Your task to perform on an android device: Do I have any events tomorrow? Image 0: 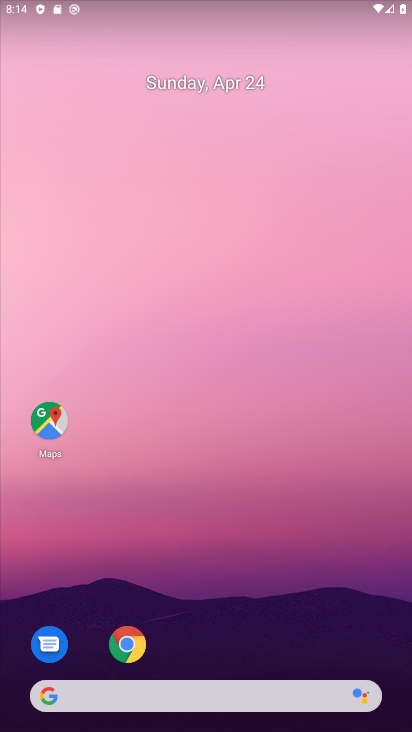
Step 0: drag from (189, 648) to (367, 70)
Your task to perform on an android device: Do I have any events tomorrow? Image 1: 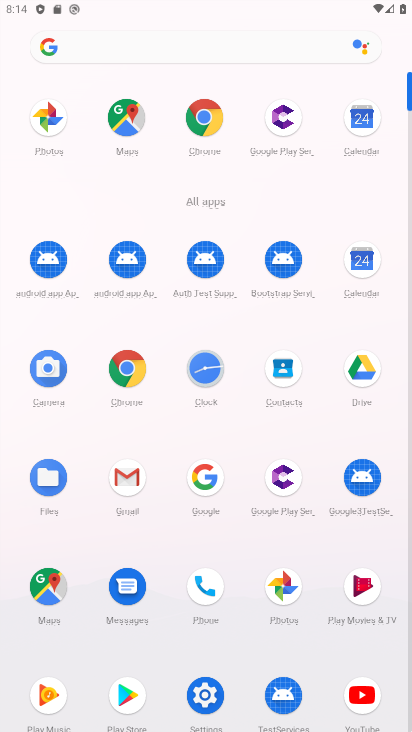
Step 1: click (369, 251)
Your task to perform on an android device: Do I have any events tomorrow? Image 2: 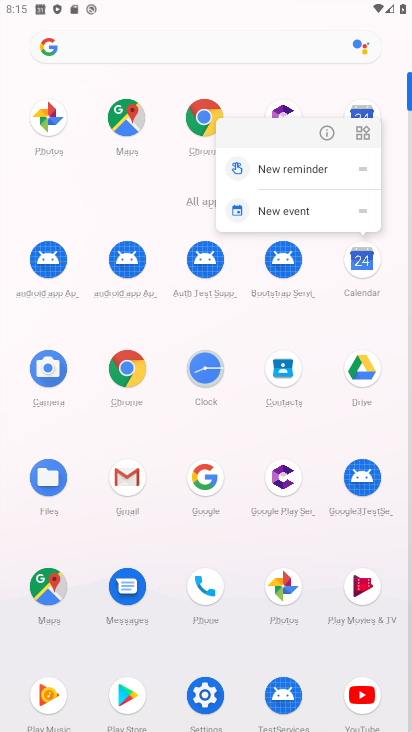
Step 2: click (329, 132)
Your task to perform on an android device: Do I have any events tomorrow? Image 3: 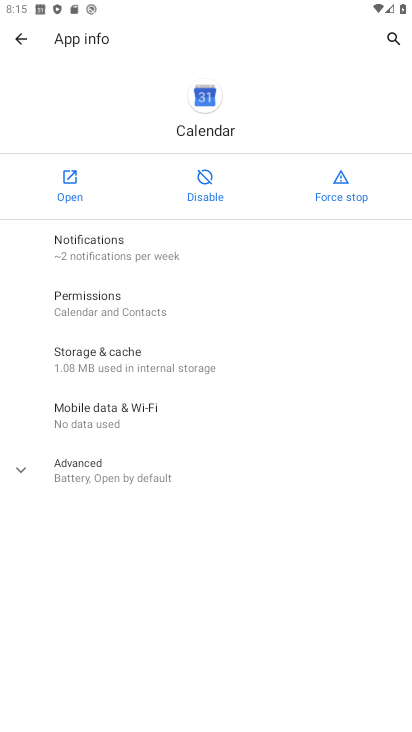
Step 3: click (84, 183)
Your task to perform on an android device: Do I have any events tomorrow? Image 4: 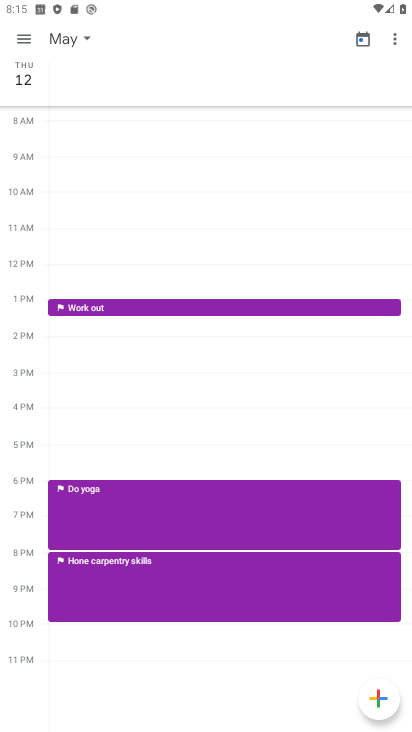
Step 4: click (74, 46)
Your task to perform on an android device: Do I have any events tomorrow? Image 5: 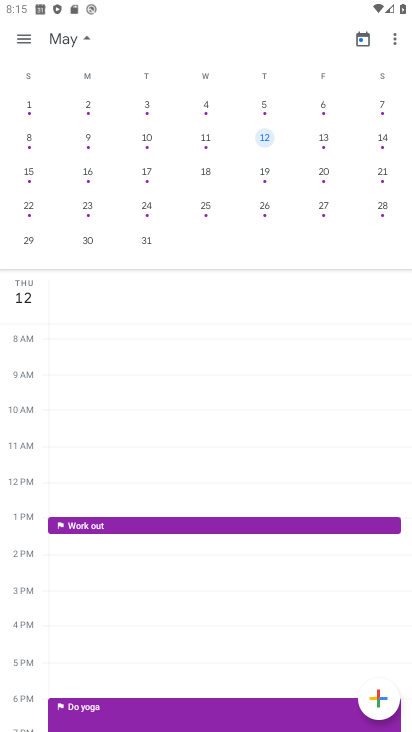
Step 5: drag from (77, 126) to (412, 125)
Your task to perform on an android device: Do I have any events tomorrow? Image 6: 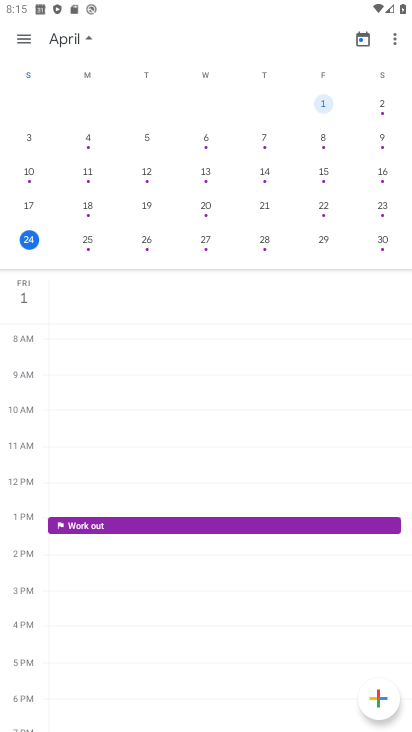
Step 6: click (88, 233)
Your task to perform on an android device: Do I have any events tomorrow? Image 7: 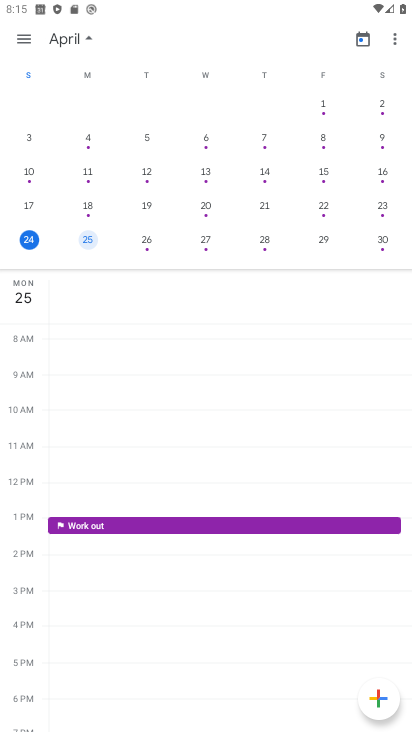
Step 7: task complete